Your task to perform on an android device: turn on wifi Image 0: 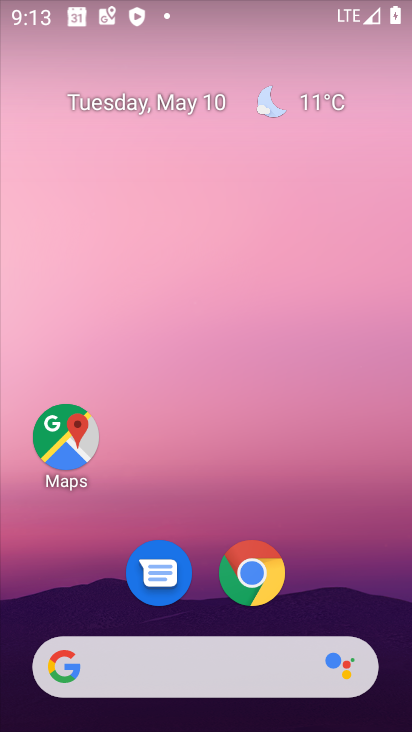
Step 0: drag from (349, 617) to (298, 34)
Your task to perform on an android device: turn on wifi Image 1: 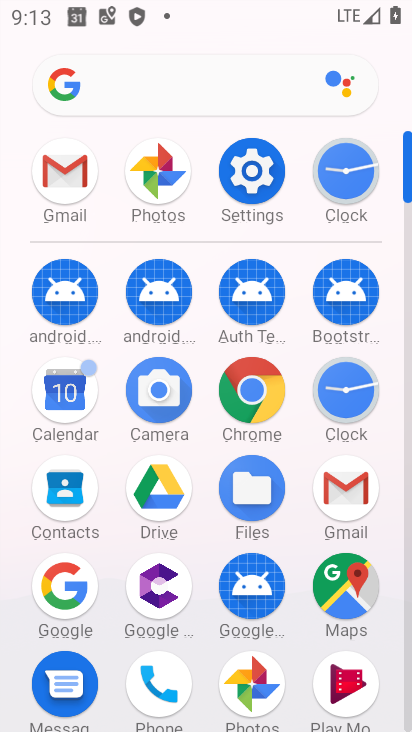
Step 1: click (250, 175)
Your task to perform on an android device: turn on wifi Image 2: 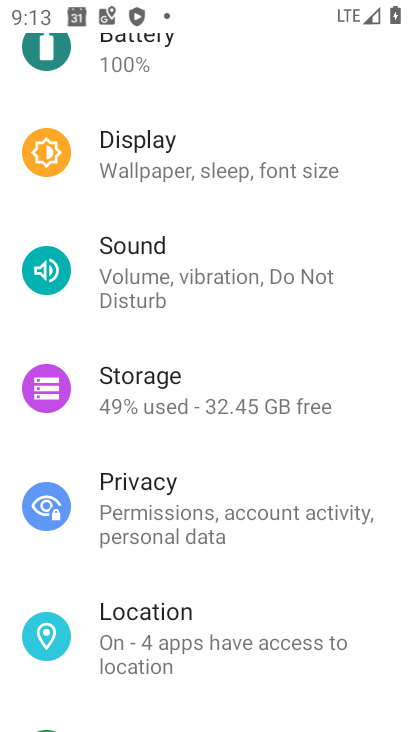
Step 2: drag from (394, 183) to (402, 637)
Your task to perform on an android device: turn on wifi Image 3: 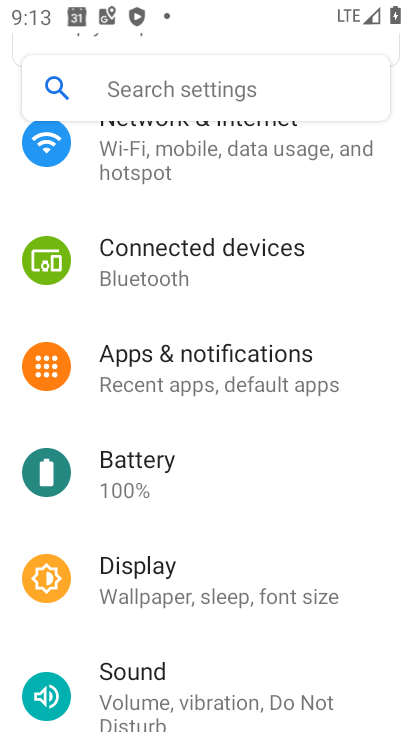
Step 3: click (155, 147)
Your task to perform on an android device: turn on wifi Image 4: 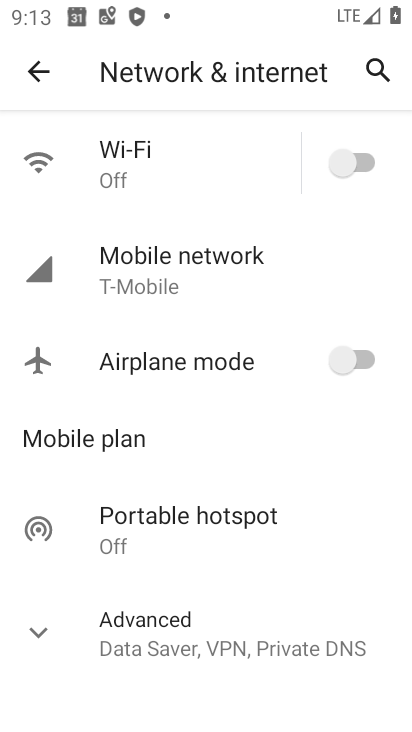
Step 4: click (342, 170)
Your task to perform on an android device: turn on wifi Image 5: 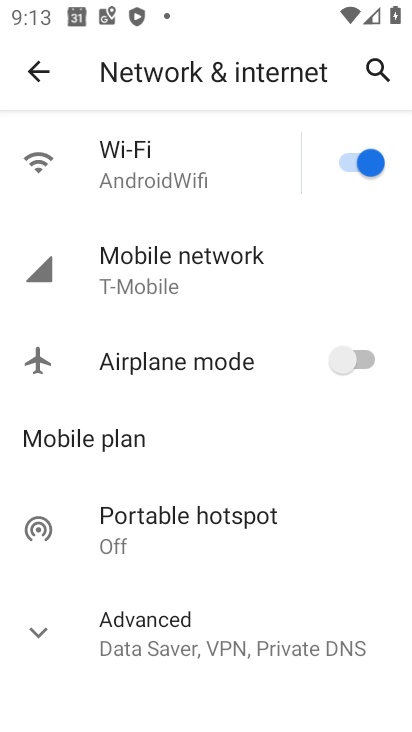
Step 5: task complete